Your task to perform on an android device: read, delete, or share a saved page in the chrome app Image 0: 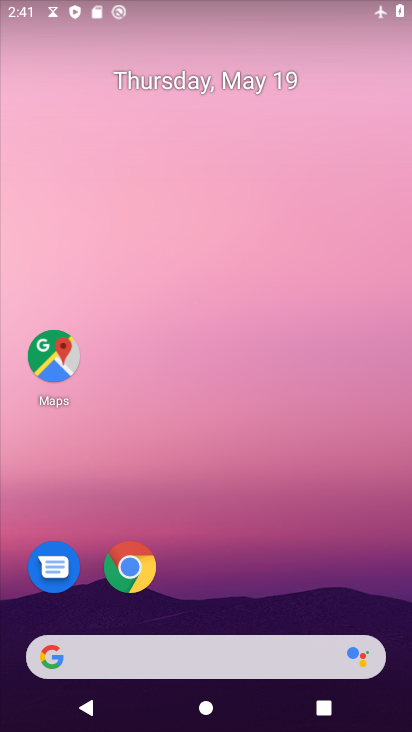
Step 0: click (114, 562)
Your task to perform on an android device: read, delete, or share a saved page in the chrome app Image 1: 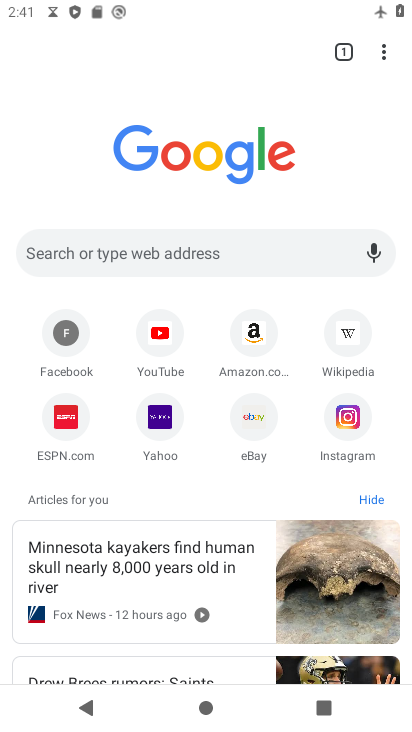
Step 1: click (385, 42)
Your task to perform on an android device: read, delete, or share a saved page in the chrome app Image 2: 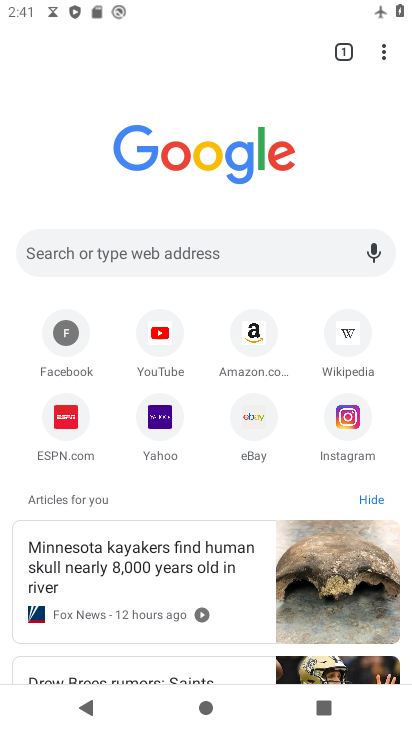
Step 2: click (381, 48)
Your task to perform on an android device: read, delete, or share a saved page in the chrome app Image 3: 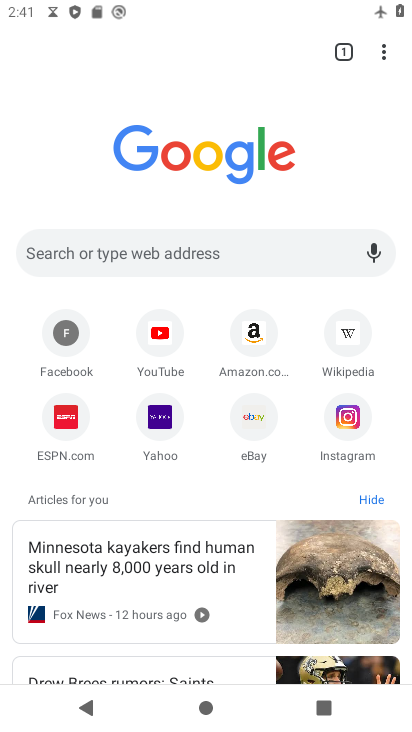
Step 3: task complete